Your task to perform on an android device: check battery use Image 0: 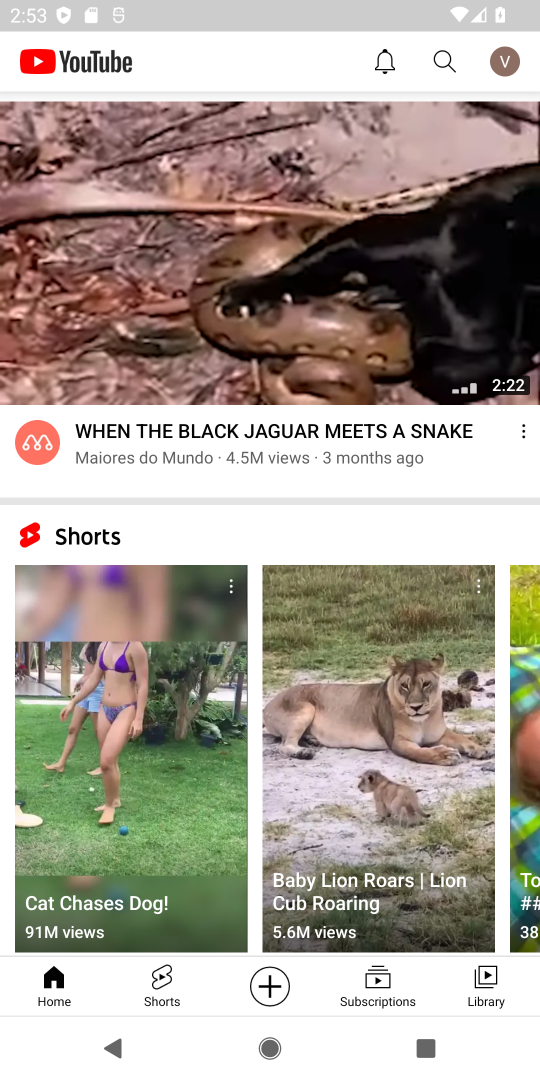
Step 0: press home button
Your task to perform on an android device: check battery use Image 1: 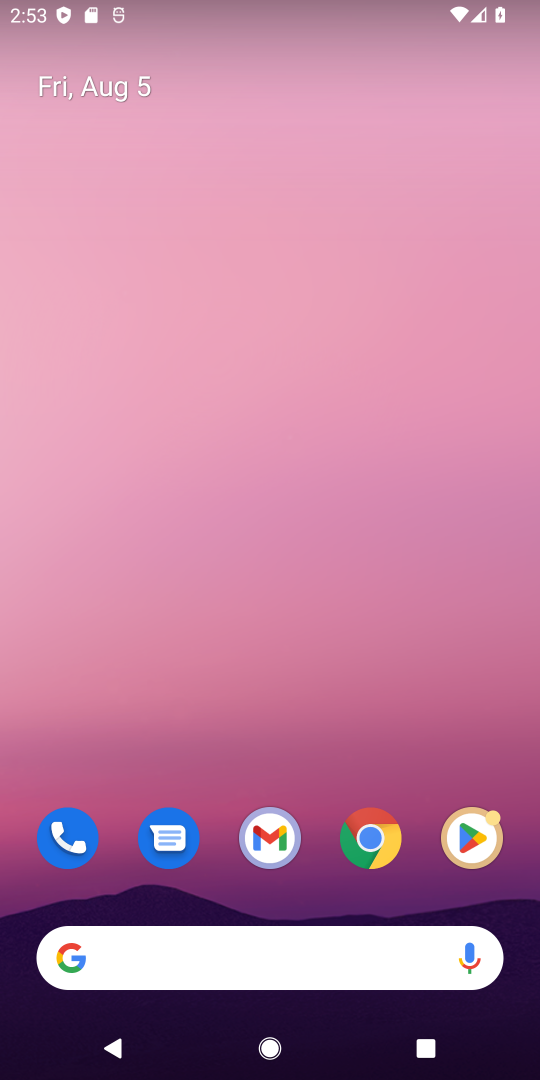
Step 1: drag from (414, 773) to (221, 99)
Your task to perform on an android device: check battery use Image 2: 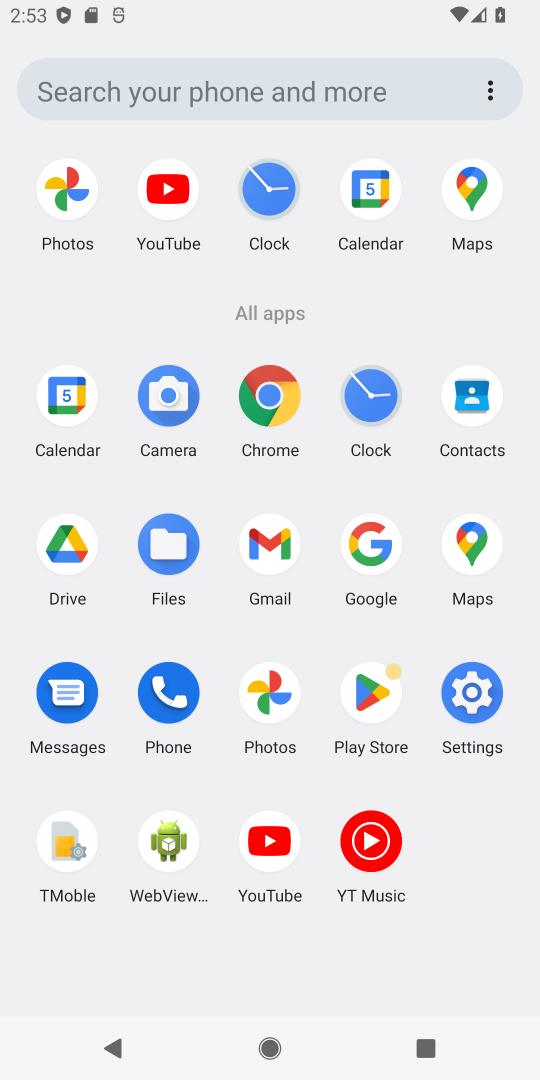
Step 2: click (486, 688)
Your task to perform on an android device: check battery use Image 3: 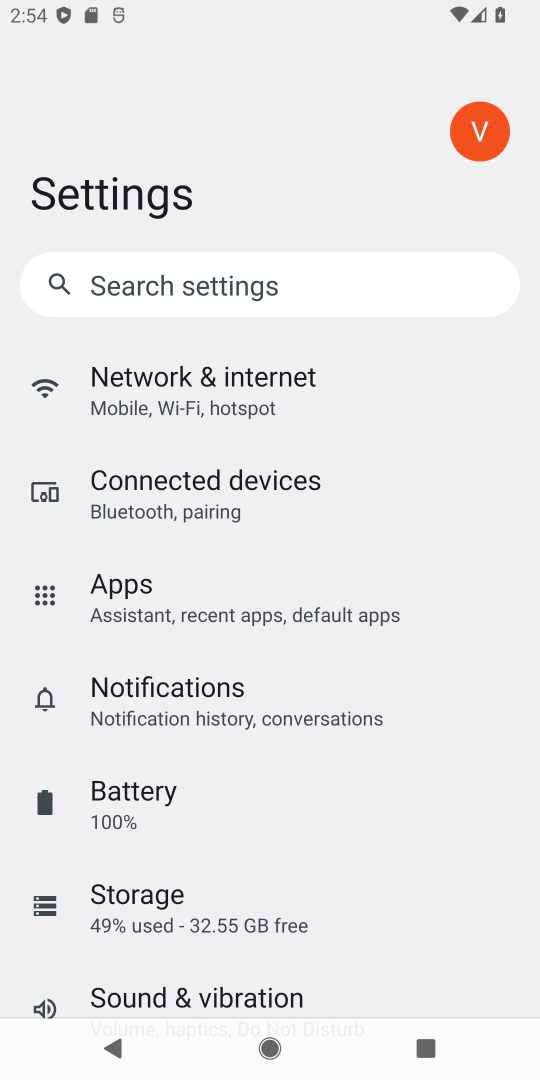
Step 3: click (326, 830)
Your task to perform on an android device: check battery use Image 4: 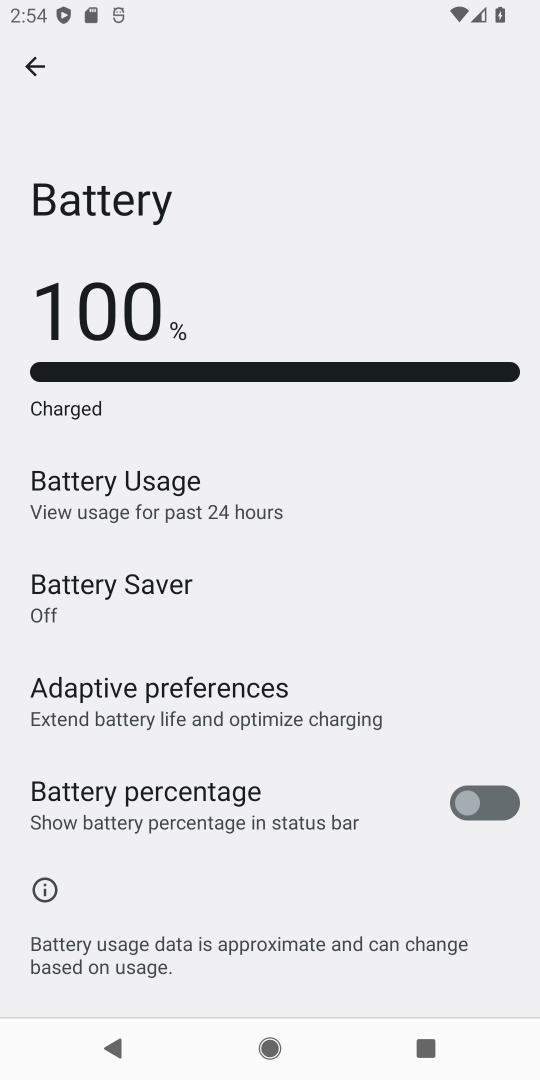
Step 4: click (247, 513)
Your task to perform on an android device: check battery use Image 5: 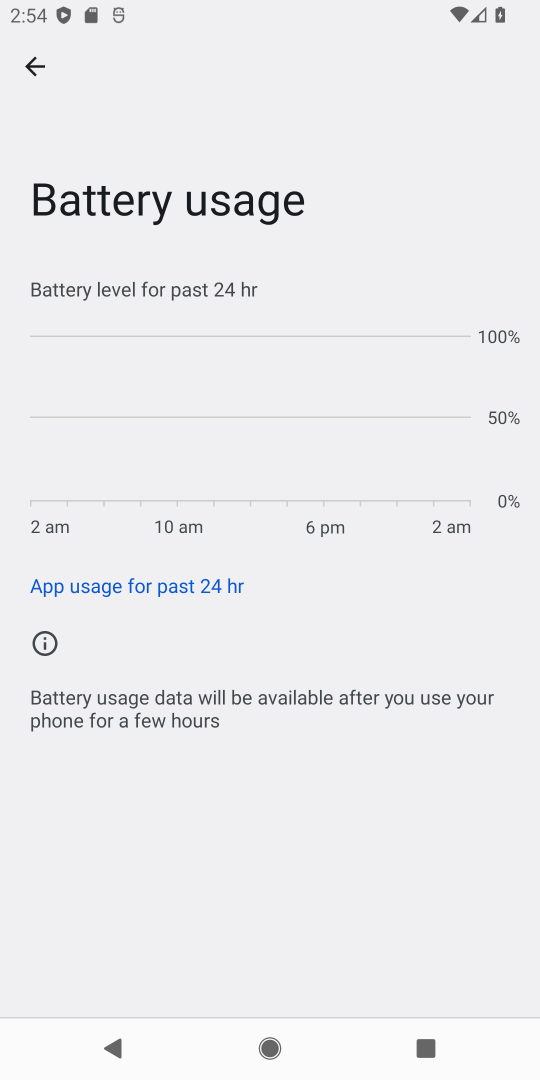
Step 5: task complete